Your task to perform on an android device: open a new tab in the chrome app Image 0: 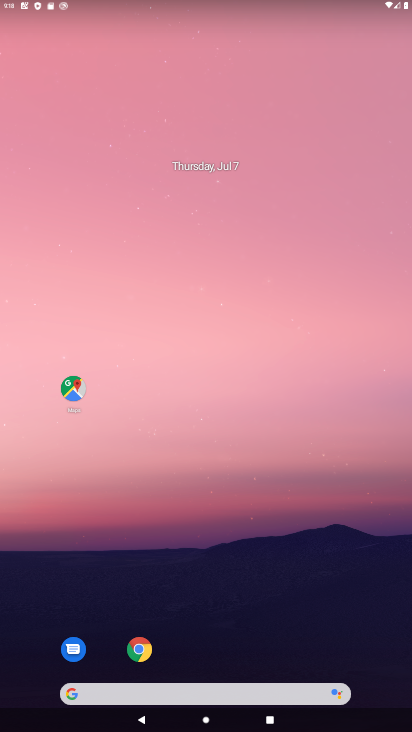
Step 0: click (142, 654)
Your task to perform on an android device: open a new tab in the chrome app Image 1: 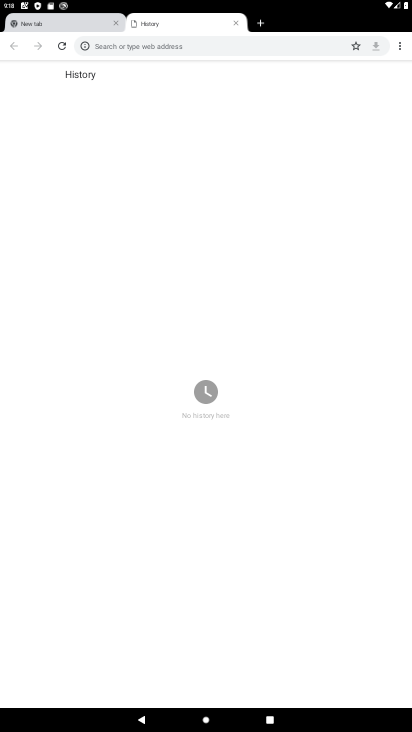
Step 1: click (262, 27)
Your task to perform on an android device: open a new tab in the chrome app Image 2: 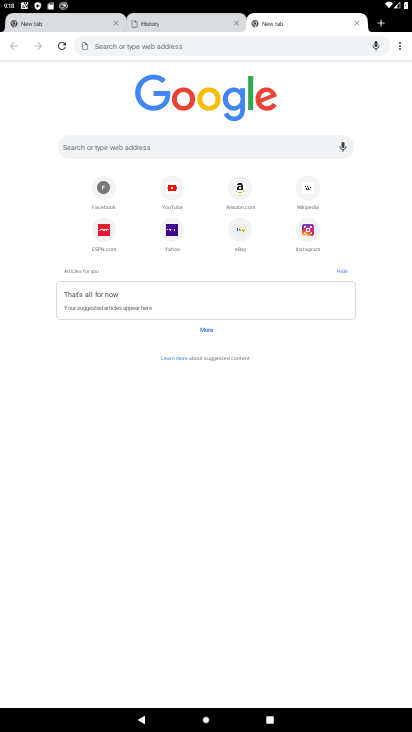
Step 2: task complete